Your task to perform on an android device: When is my next meeting? Image 0: 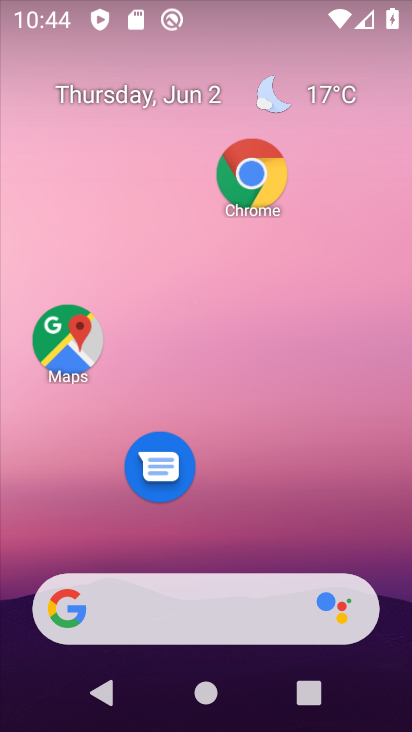
Step 0: drag from (318, 462) to (306, 163)
Your task to perform on an android device: When is my next meeting? Image 1: 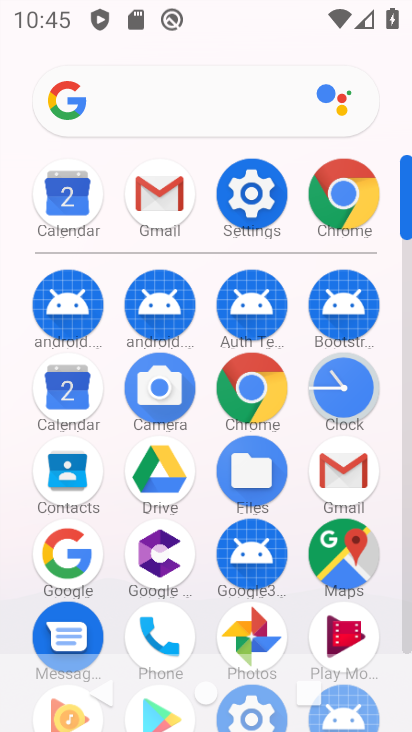
Step 1: click (72, 401)
Your task to perform on an android device: When is my next meeting? Image 2: 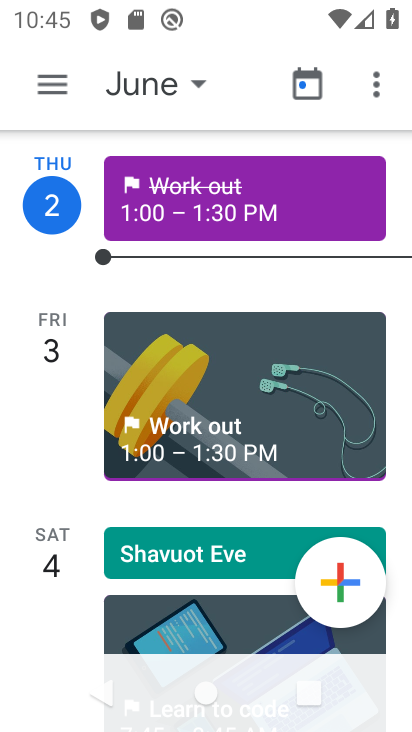
Step 2: click (49, 77)
Your task to perform on an android device: When is my next meeting? Image 3: 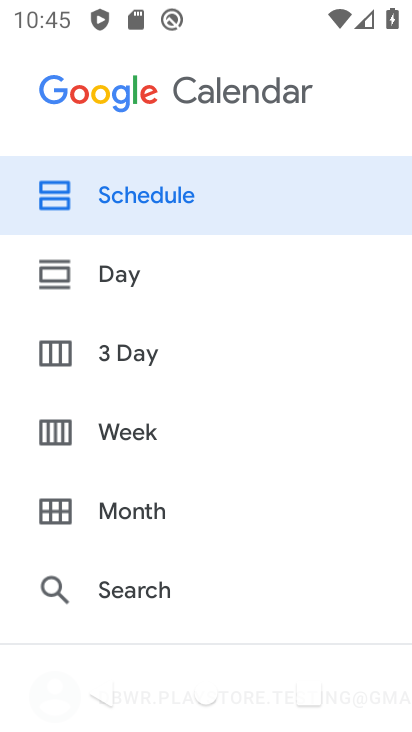
Step 3: click (134, 207)
Your task to perform on an android device: When is my next meeting? Image 4: 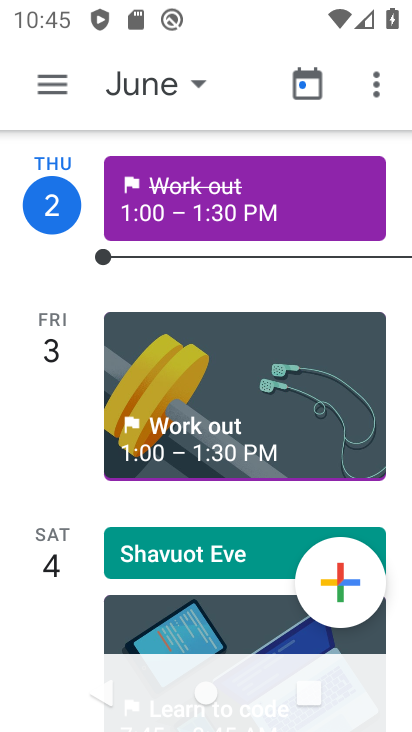
Step 4: task complete